Your task to perform on an android device: What is the news today? Image 0: 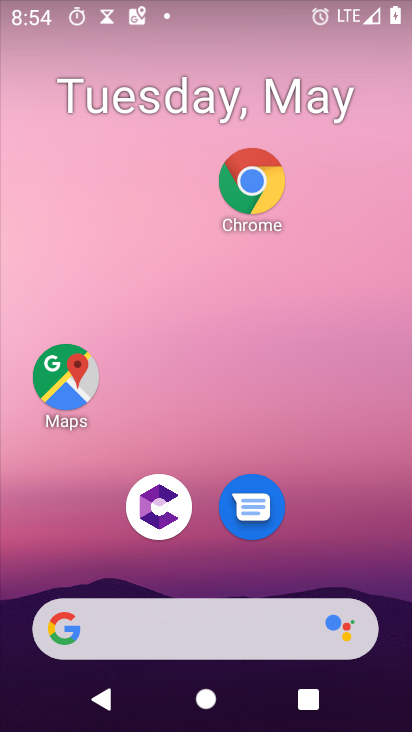
Step 0: drag from (311, 558) to (228, 88)
Your task to perform on an android device: What is the news today? Image 1: 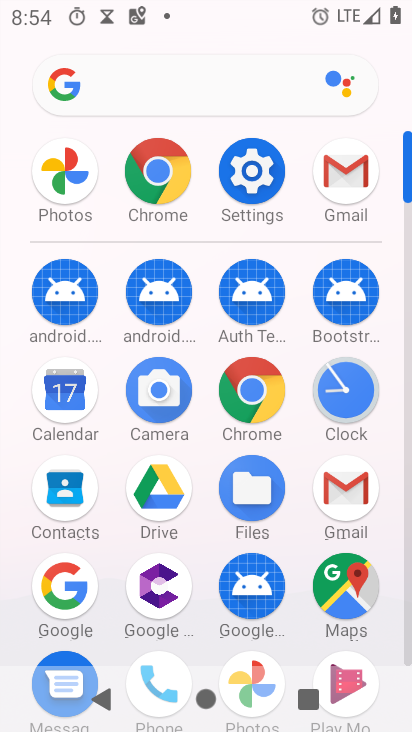
Step 1: click (125, 99)
Your task to perform on an android device: What is the news today? Image 2: 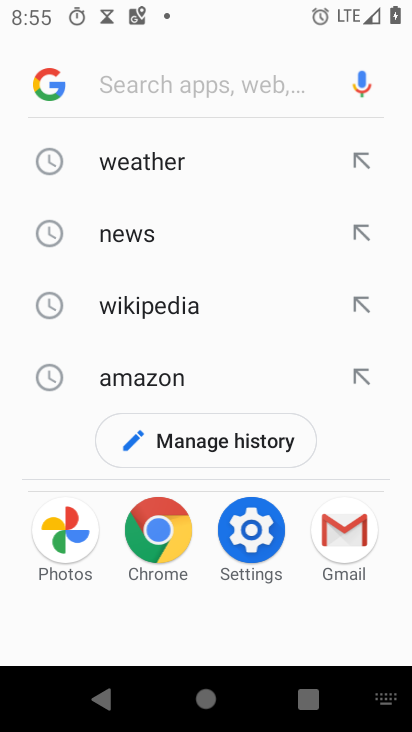
Step 2: type "what is the news today"
Your task to perform on an android device: What is the news today? Image 3: 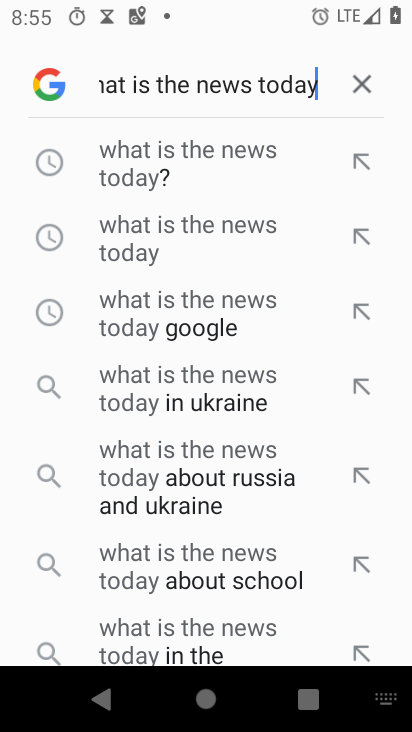
Step 3: click (205, 176)
Your task to perform on an android device: What is the news today? Image 4: 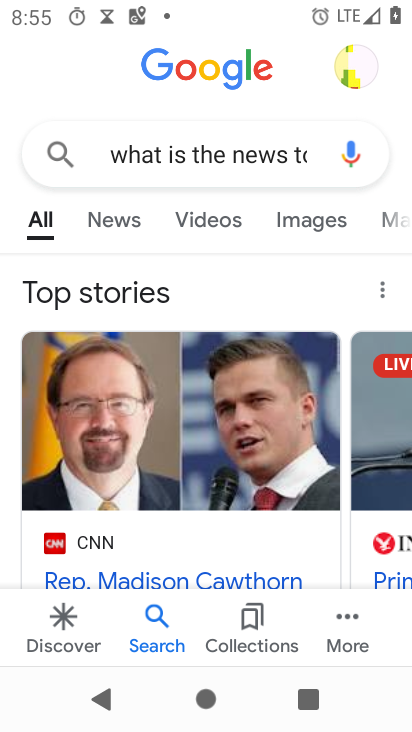
Step 4: click (118, 216)
Your task to perform on an android device: What is the news today? Image 5: 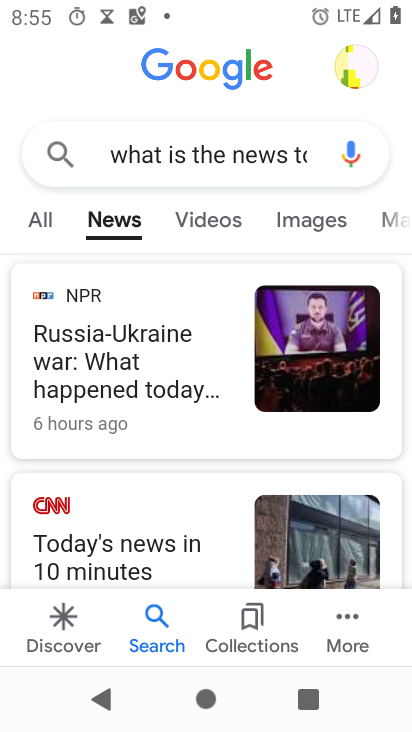
Step 5: task complete